Your task to perform on an android device: Open the web browser Image 0: 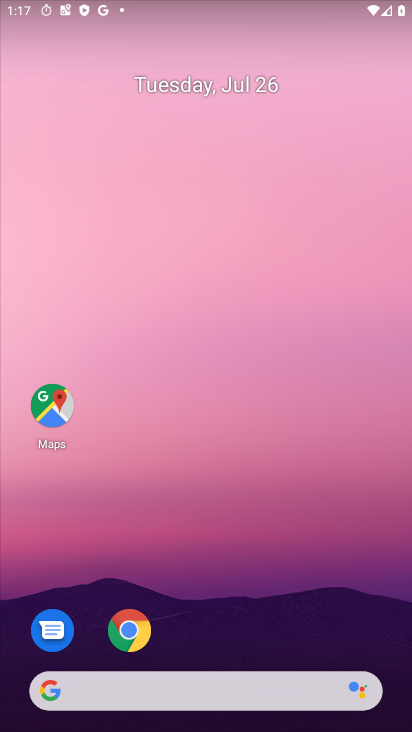
Step 0: drag from (322, 568) to (411, 87)
Your task to perform on an android device: Open the web browser Image 1: 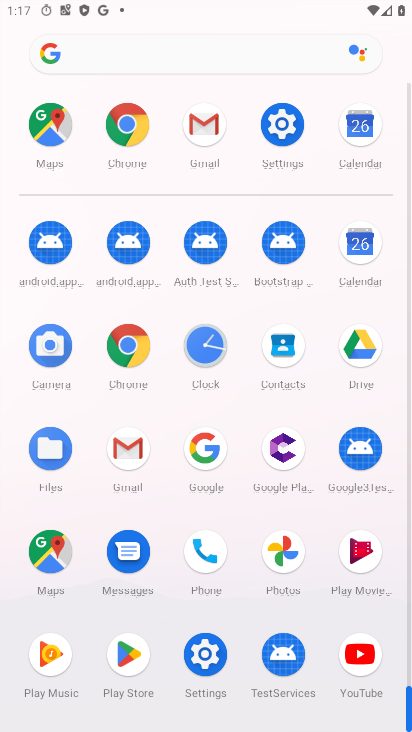
Step 1: click (140, 125)
Your task to perform on an android device: Open the web browser Image 2: 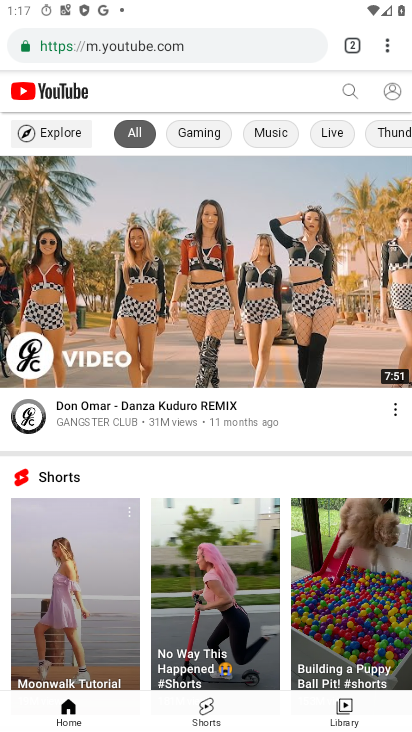
Step 2: task complete